Your task to perform on an android device: Open Yahoo.com Image 0: 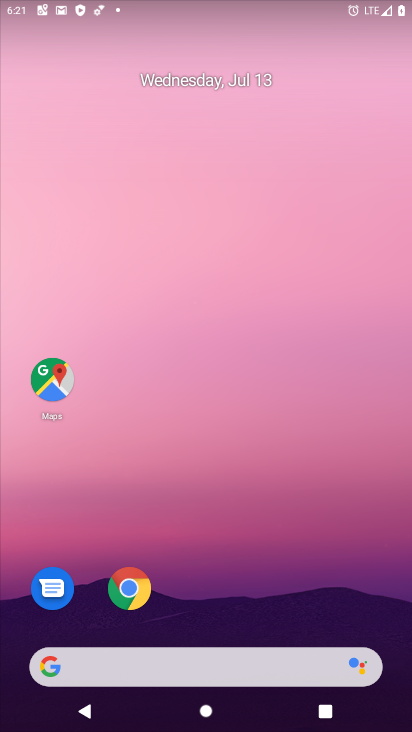
Step 0: click (125, 595)
Your task to perform on an android device: Open Yahoo.com Image 1: 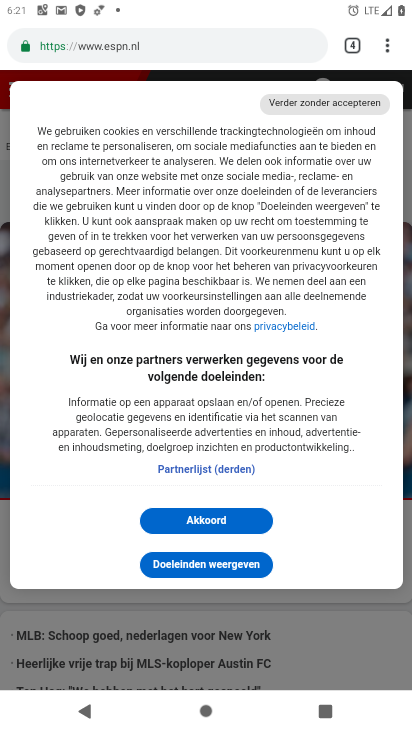
Step 1: click (144, 58)
Your task to perform on an android device: Open Yahoo.com Image 2: 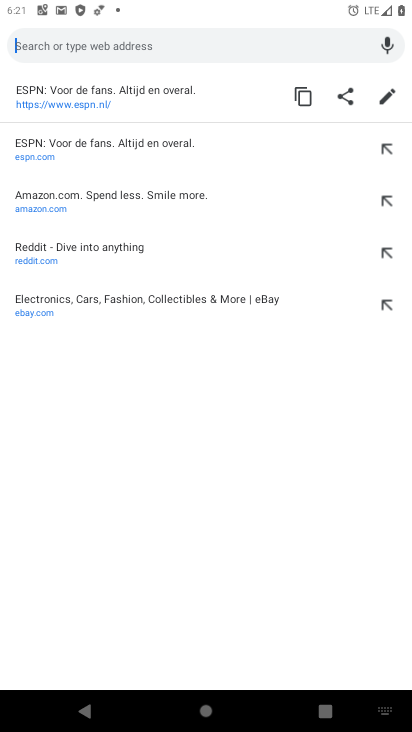
Step 2: type "www.yahoo.com"
Your task to perform on an android device: Open Yahoo.com Image 3: 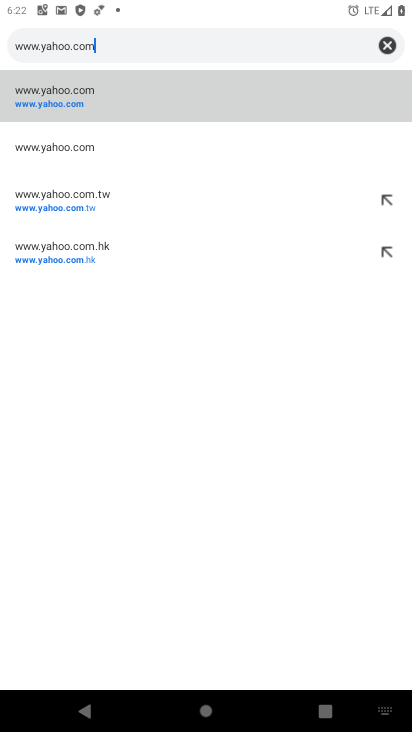
Step 3: click (63, 89)
Your task to perform on an android device: Open Yahoo.com Image 4: 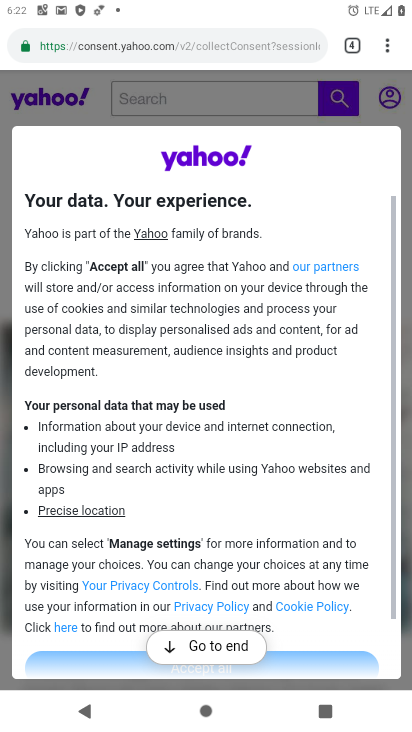
Step 4: task complete